Your task to perform on an android device: install app "Life360: Find Family & Friends" Image 0: 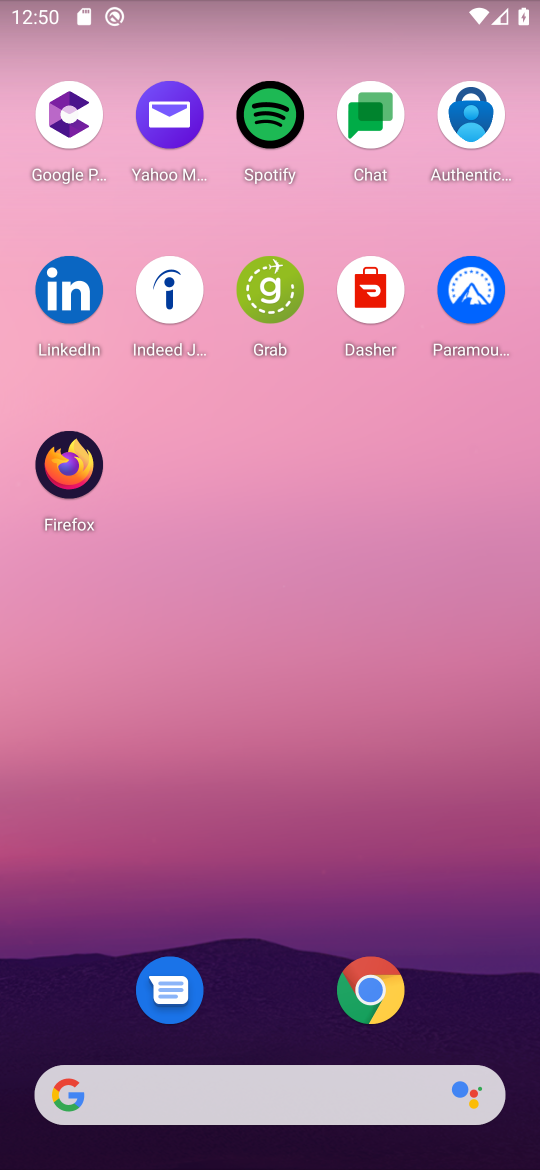
Step 0: drag from (218, 844) to (196, 223)
Your task to perform on an android device: install app "Life360: Find Family & Friends" Image 1: 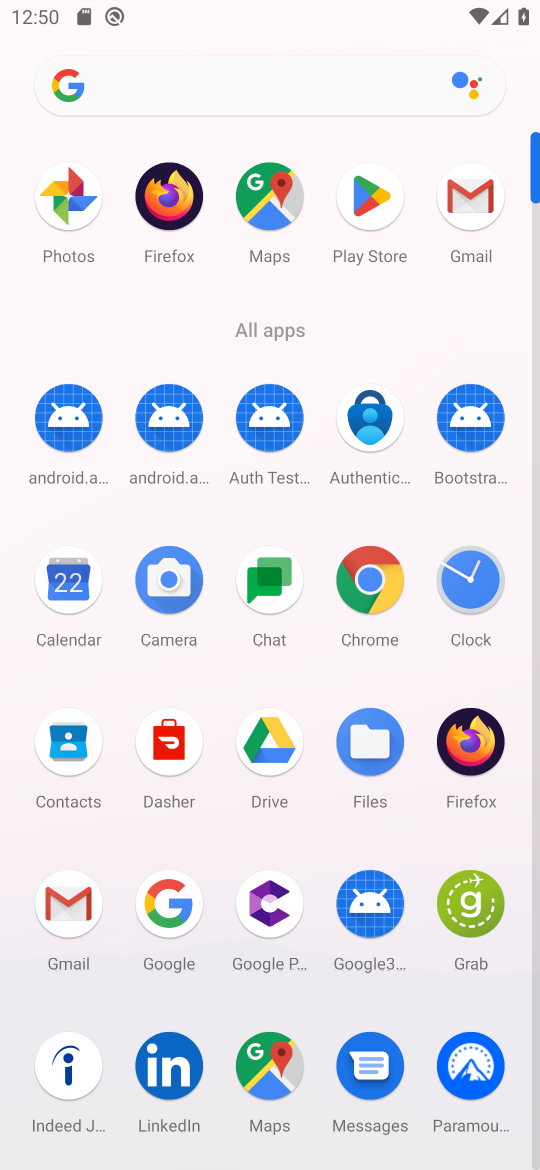
Step 1: click (347, 218)
Your task to perform on an android device: install app "Life360: Find Family & Friends" Image 2: 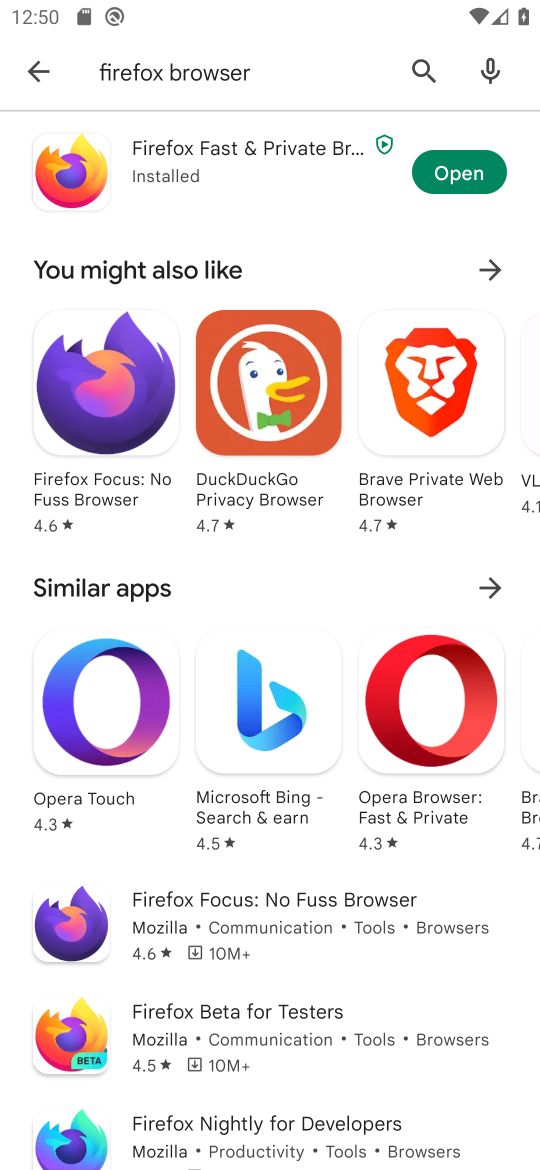
Step 2: click (425, 82)
Your task to perform on an android device: install app "Life360: Find Family & Friends" Image 3: 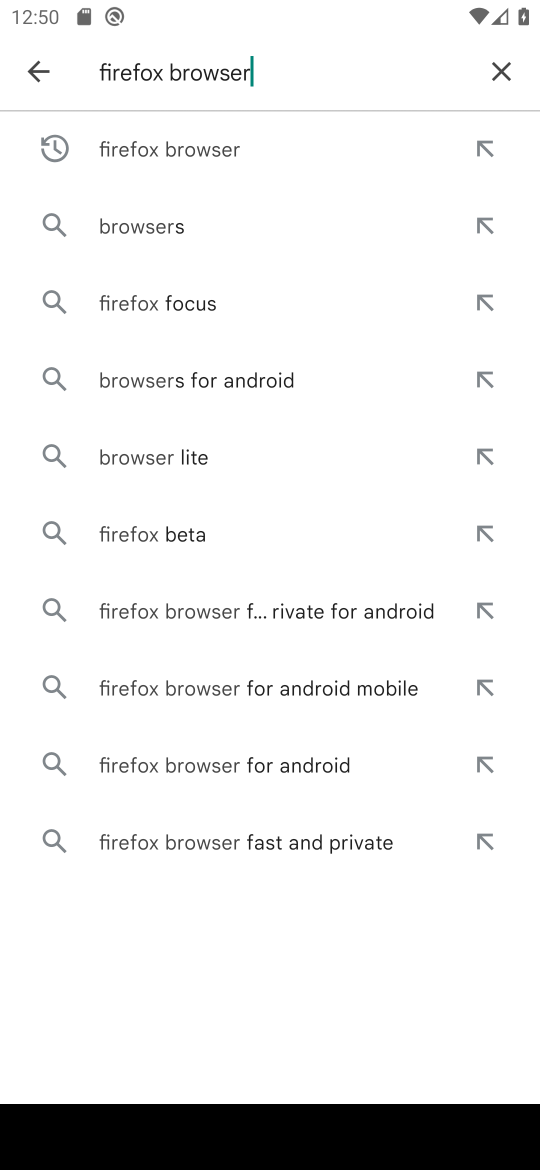
Step 3: click (512, 54)
Your task to perform on an android device: install app "Life360: Find Family & Friends" Image 4: 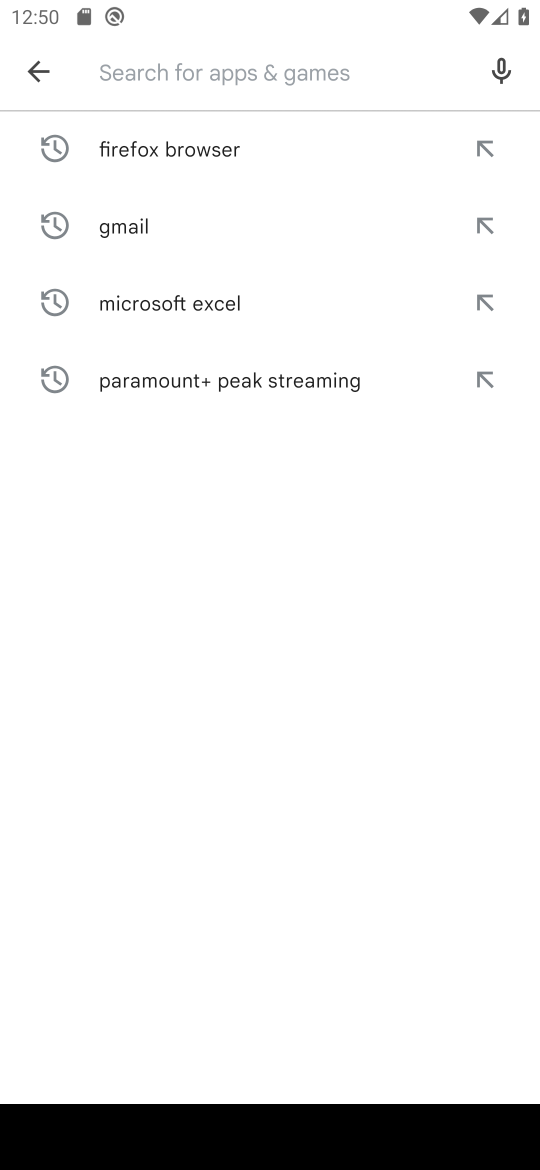
Step 4: type "Life360: Find Family & Friends"
Your task to perform on an android device: install app "Life360: Find Family & Friends" Image 5: 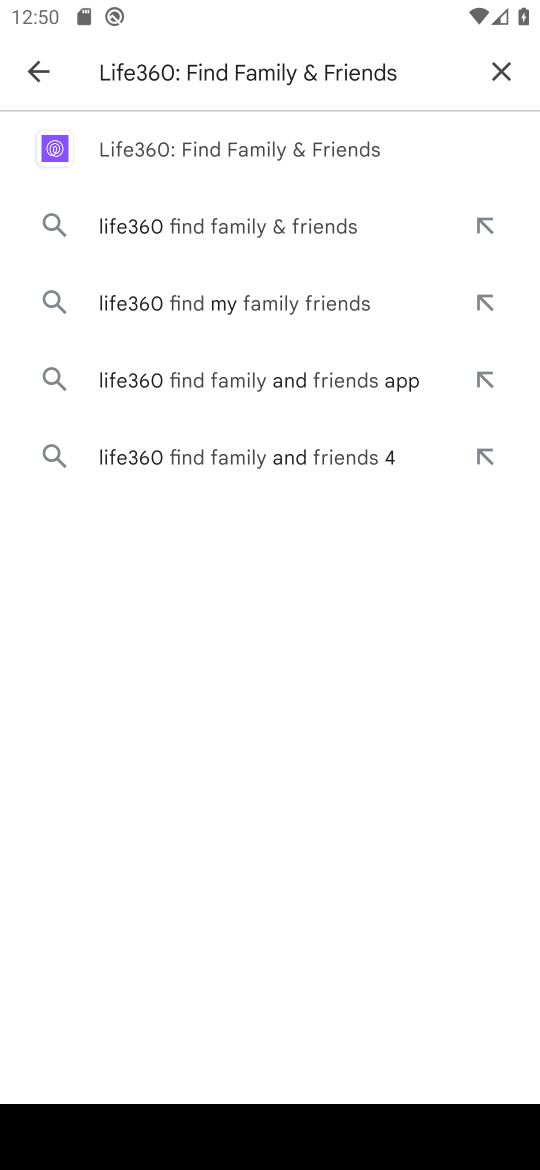
Step 5: click (280, 154)
Your task to perform on an android device: install app "Life360: Find Family & Friends" Image 6: 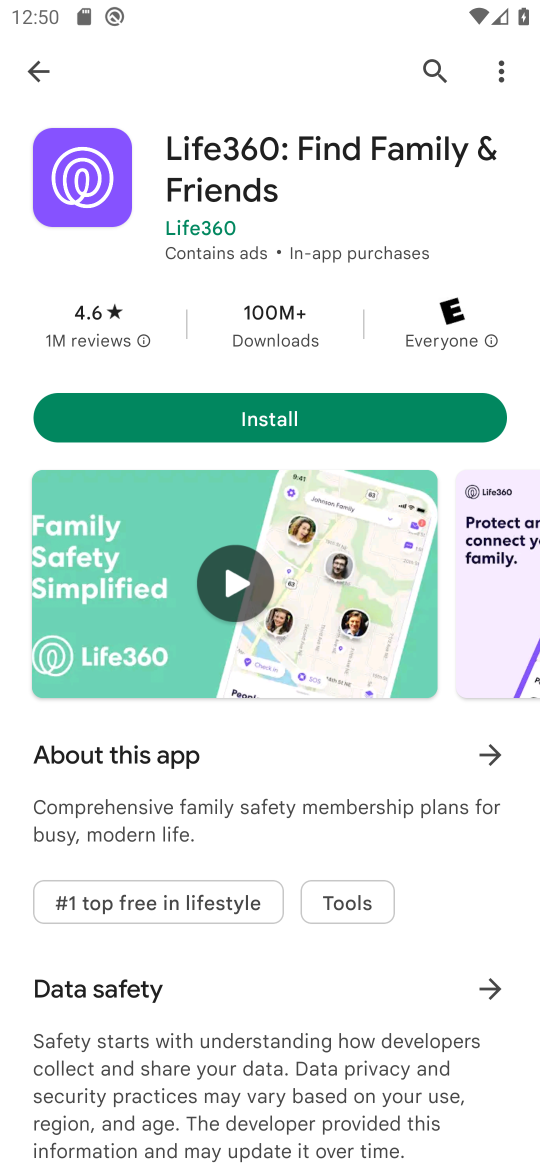
Step 6: click (279, 429)
Your task to perform on an android device: install app "Life360: Find Family & Friends" Image 7: 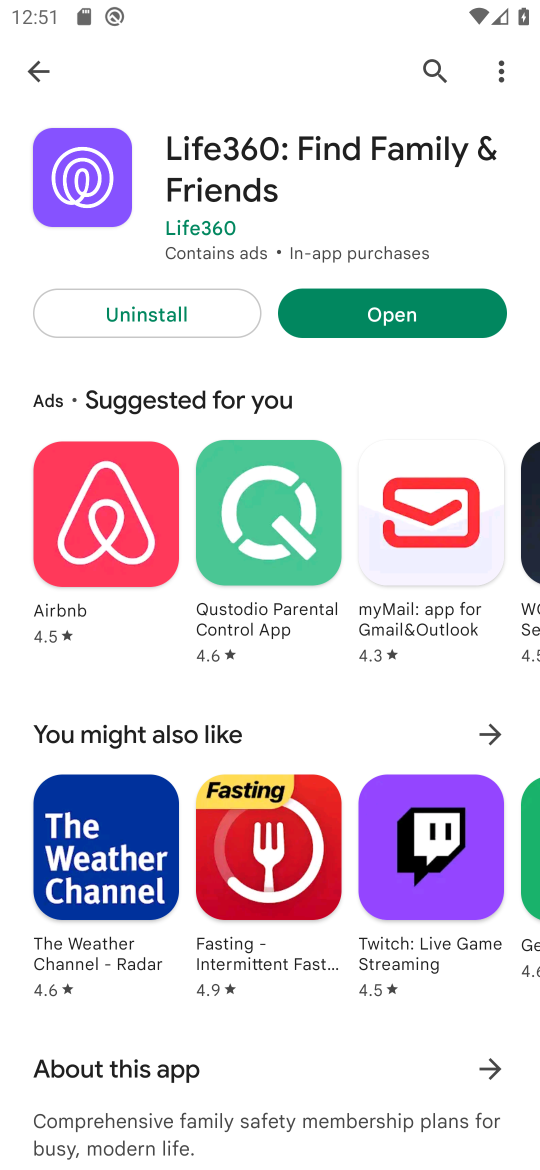
Step 7: task complete